Your task to perform on an android device: open the mobile data screen to see how much data has been used Image 0: 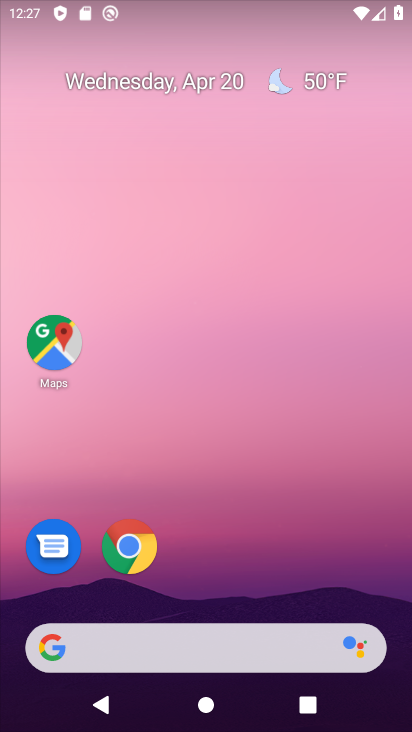
Step 0: click (296, 44)
Your task to perform on an android device: open the mobile data screen to see how much data has been used Image 1: 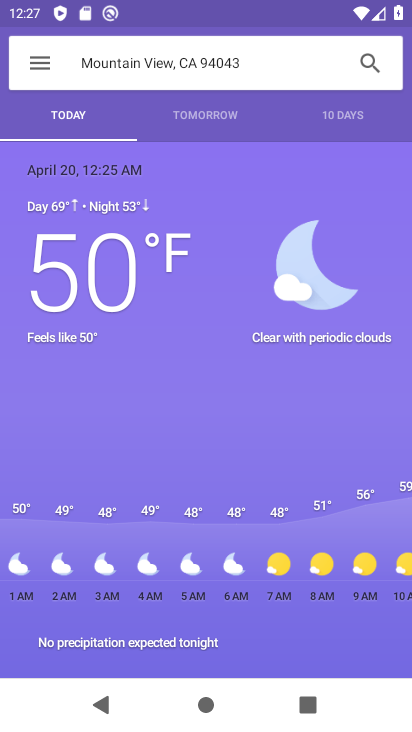
Step 1: press home button
Your task to perform on an android device: open the mobile data screen to see how much data has been used Image 2: 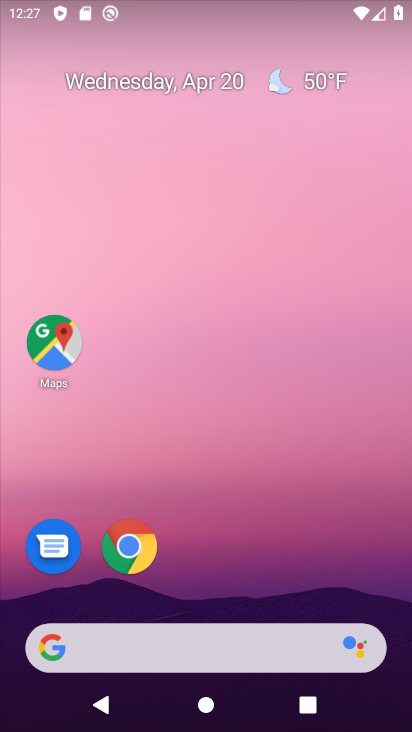
Step 2: drag from (206, 574) to (305, 18)
Your task to perform on an android device: open the mobile data screen to see how much data has been used Image 3: 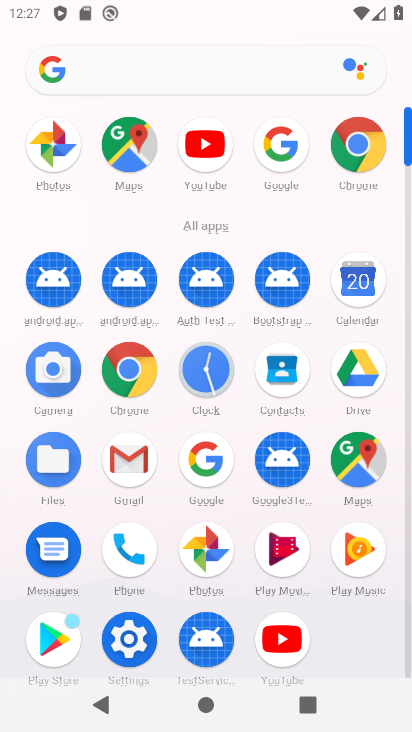
Step 3: click (135, 648)
Your task to perform on an android device: open the mobile data screen to see how much data has been used Image 4: 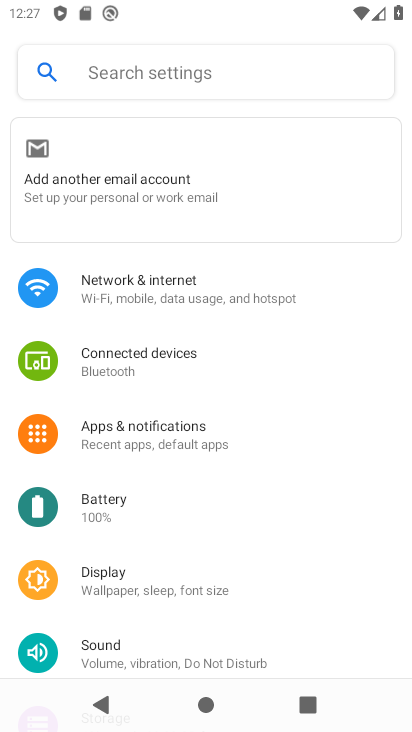
Step 4: click (159, 284)
Your task to perform on an android device: open the mobile data screen to see how much data has been used Image 5: 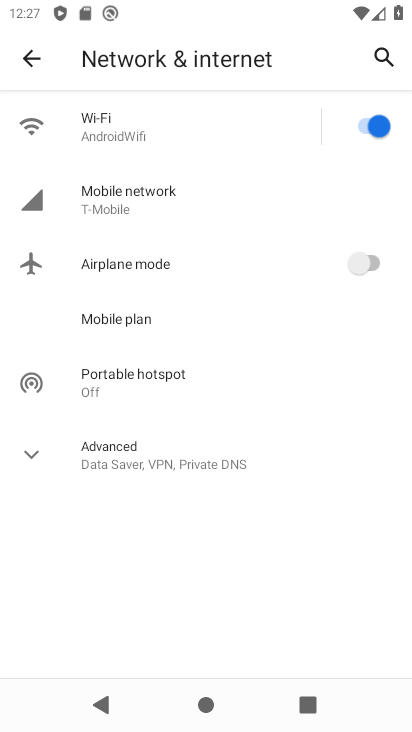
Step 5: click (148, 194)
Your task to perform on an android device: open the mobile data screen to see how much data has been used Image 6: 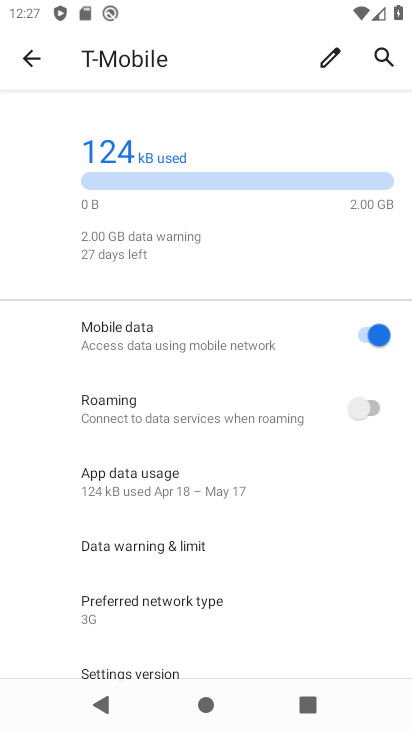
Step 6: click (143, 469)
Your task to perform on an android device: open the mobile data screen to see how much data has been used Image 7: 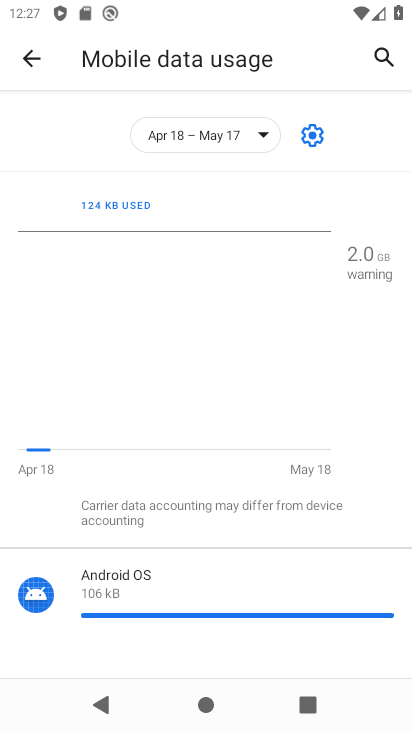
Step 7: task complete